Your task to perform on an android device: Open wifi settings Image 0: 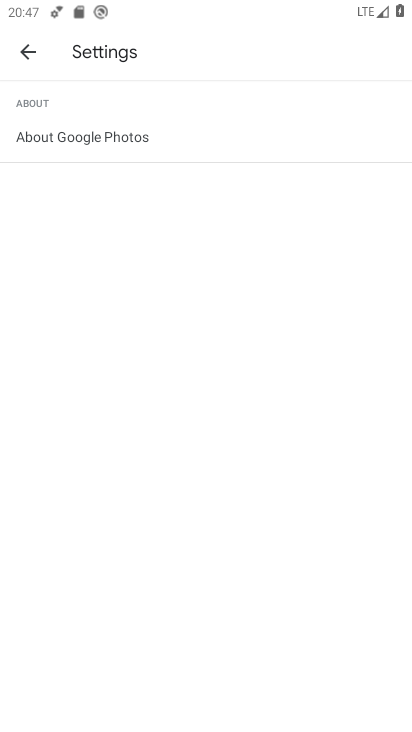
Step 0: press home button
Your task to perform on an android device: Open wifi settings Image 1: 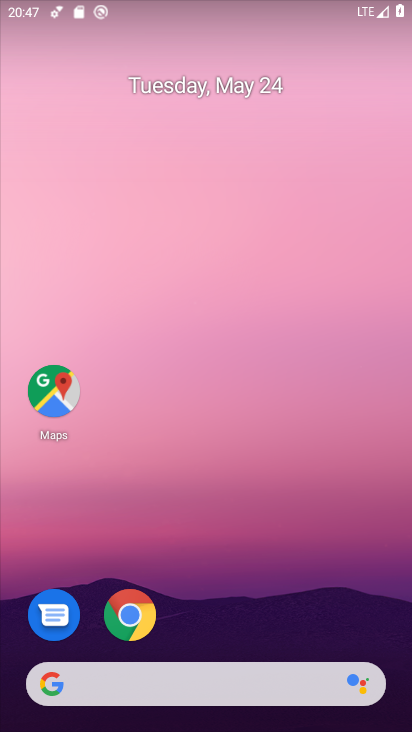
Step 1: drag from (282, 542) to (289, 323)
Your task to perform on an android device: Open wifi settings Image 2: 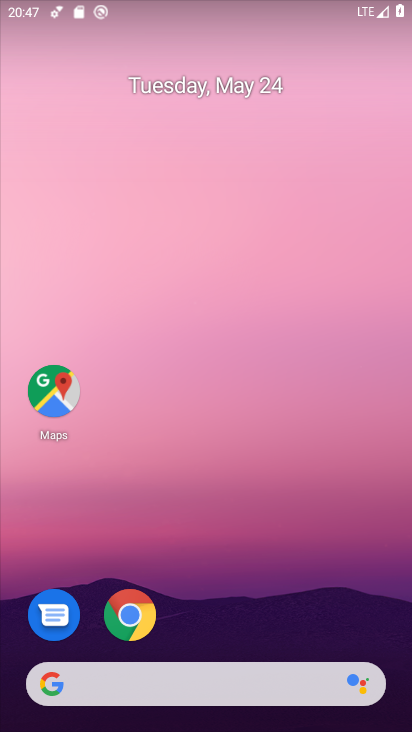
Step 2: drag from (265, 650) to (250, 263)
Your task to perform on an android device: Open wifi settings Image 3: 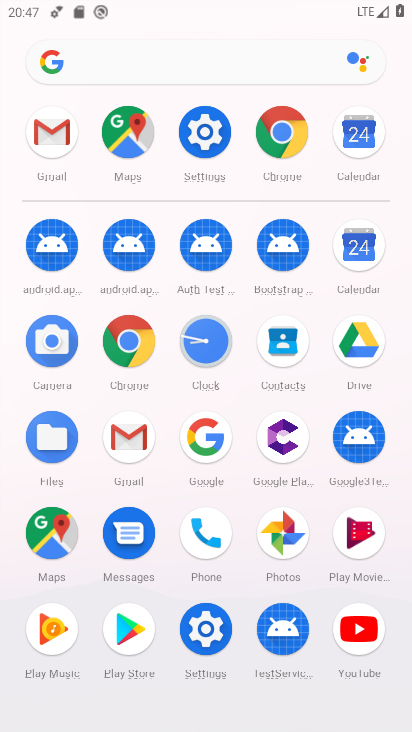
Step 3: click (190, 120)
Your task to perform on an android device: Open wifi settings Image 4: 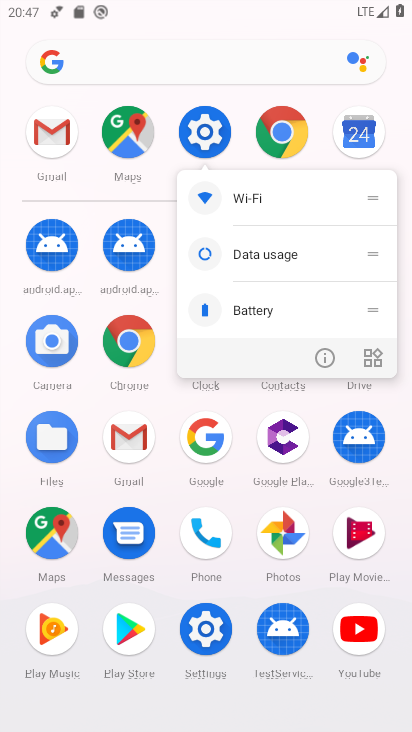
Step 4: click (207, 126)
Your task to perform on an android device: Open wifi settings Image 5: 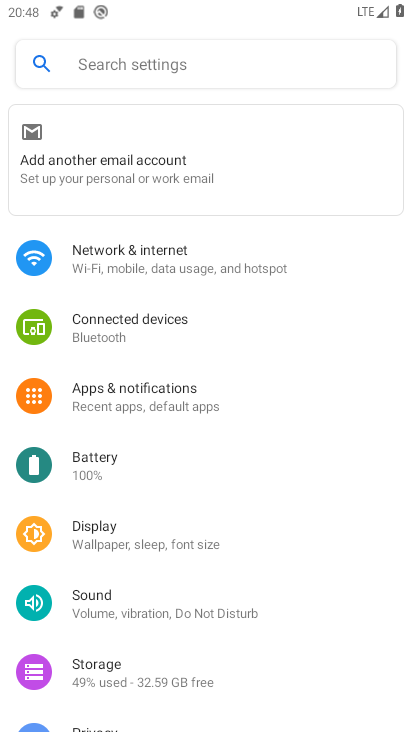
Step 5: click (180, 267)
Your task to perform on an android device: Open wifi settings Image 6: 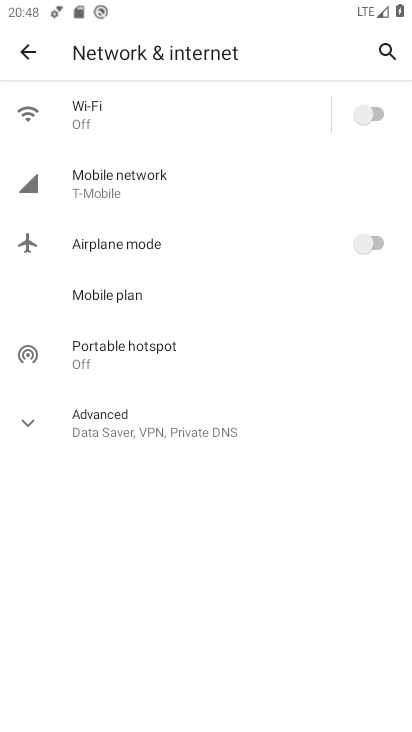
Step 6: click (168, 107)
Your task to perform on an android device: Open wifi settings Image 7: 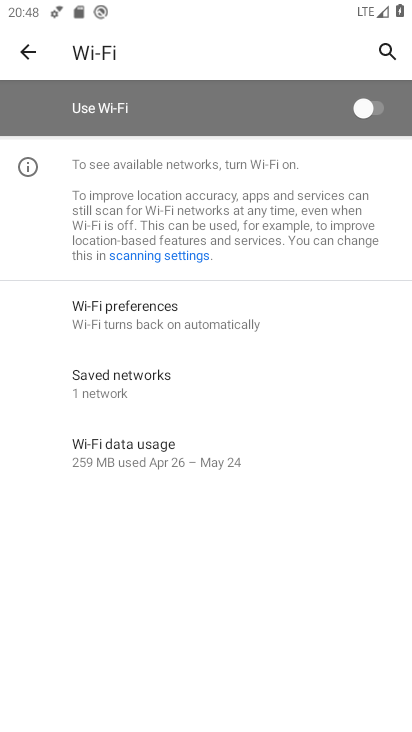
Step 7: click (366, 110)
Your task to perform on an android device: Open wifi settings Image 8: 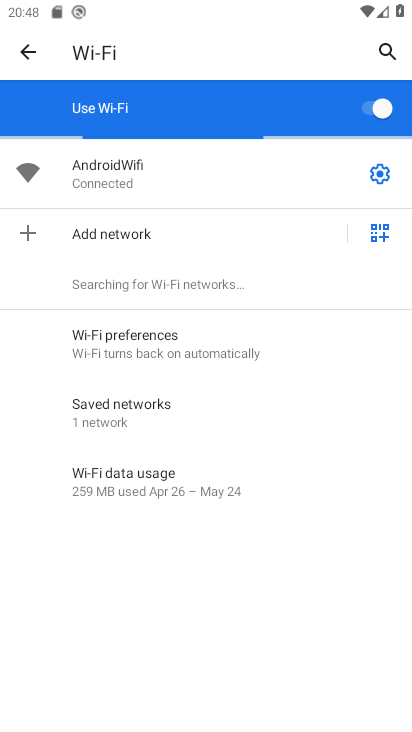
Step 8: task complete